Your task to perform on an android device: turn on wifi Image 0: 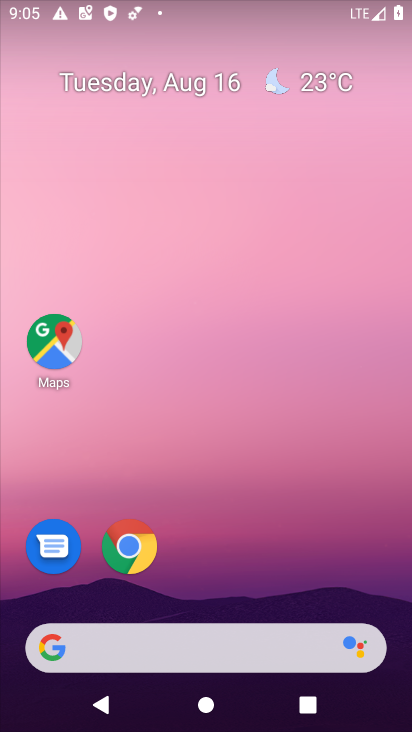
Step 0: drag from (212, 456) to (217, 0)
Your task to perform on an android device: turn on wifi Image 1: 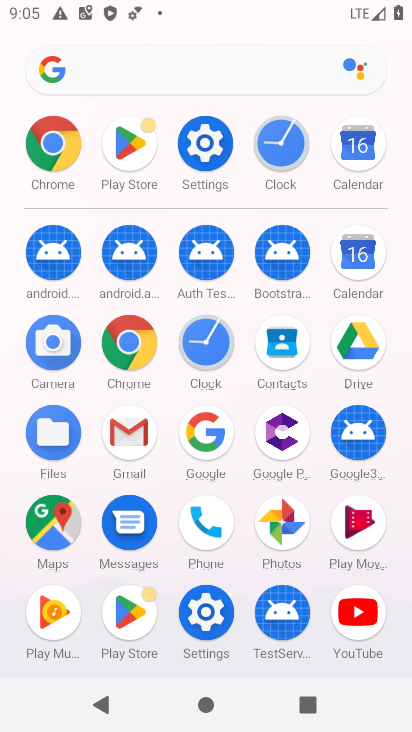
Step 1: click (204, 140)
Your task to perform on an android device: turn on wifi Image 2: 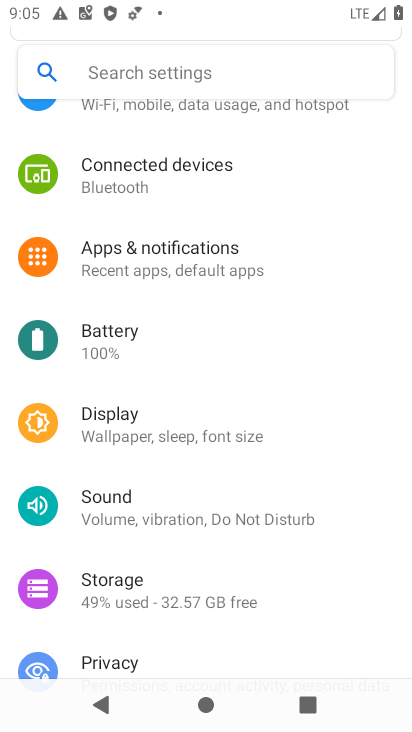
Step 2: drag from (208, 222) to (235, 624)
Your task to perform on an android device: turn on wifi Image 3: 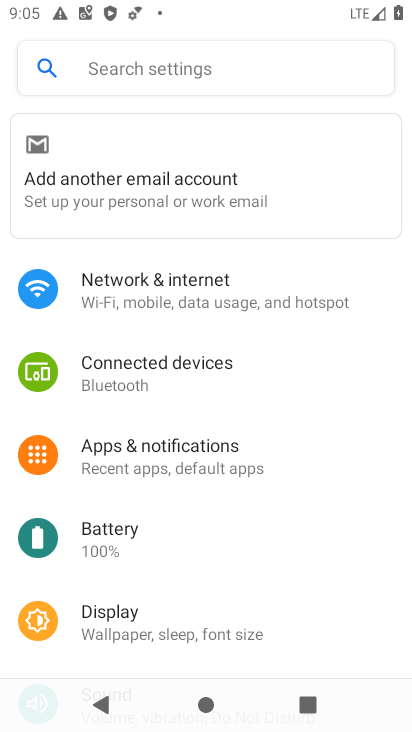
Step 3: click (184, 292)
Your task to perform on an android device: turn on wifi Image 4: 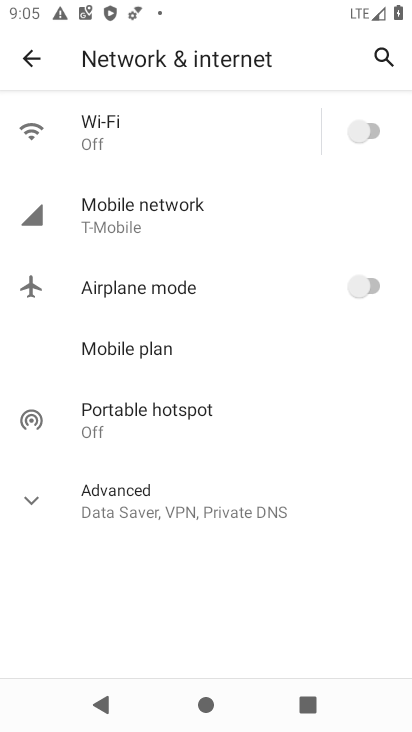
Step 4: click (367, 123)
Your task to perform on an android device: turn on wifi Image 5: 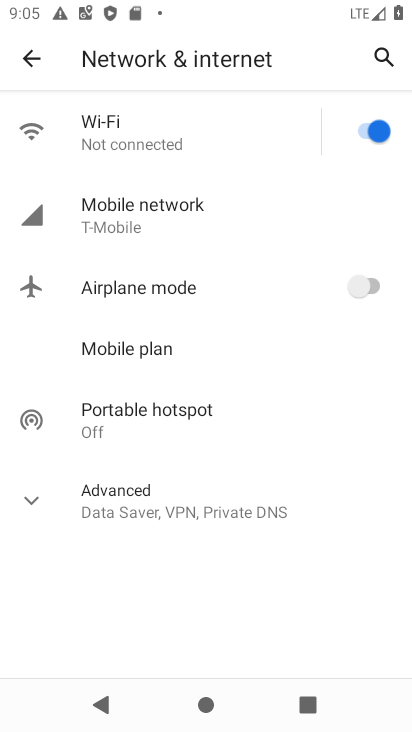
Step 5: task complete